Your task to perform on an android device: Check the news Image 0: 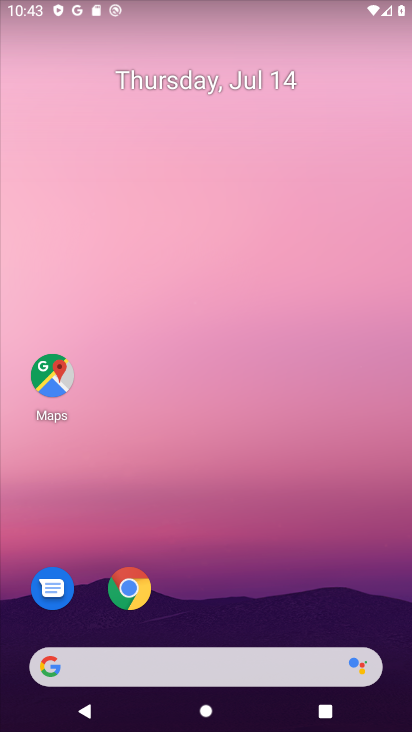
Step 0: press home button
Your task to perform on an android device: Check the news Image 1: 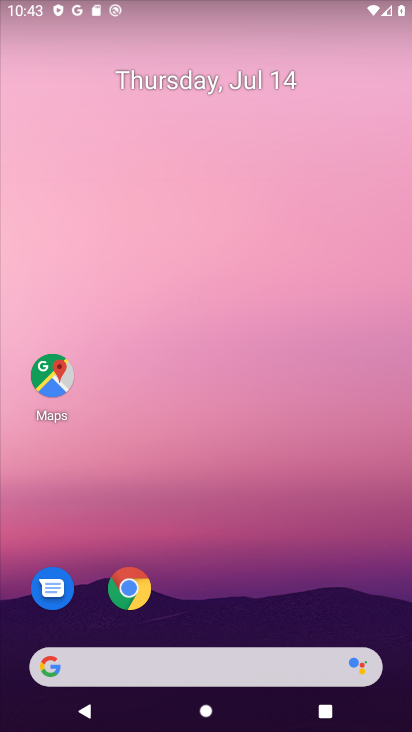
Step 1: click (136, 578)
Your task to perform on an android device: Check the news Image 2: 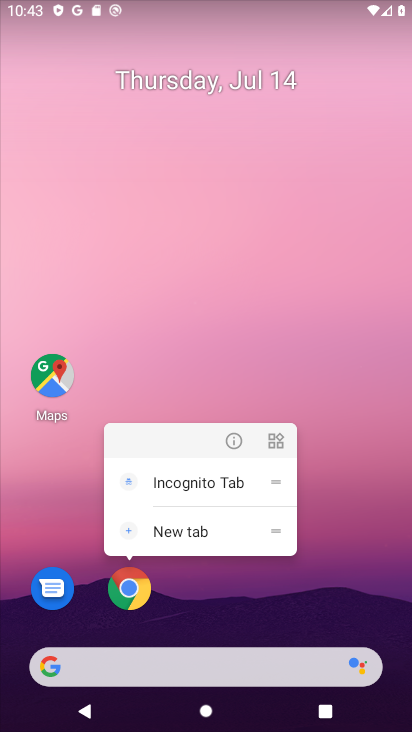
Step 2: click (136, 578)
Your task to perform on an android device: Check the news Image 3: 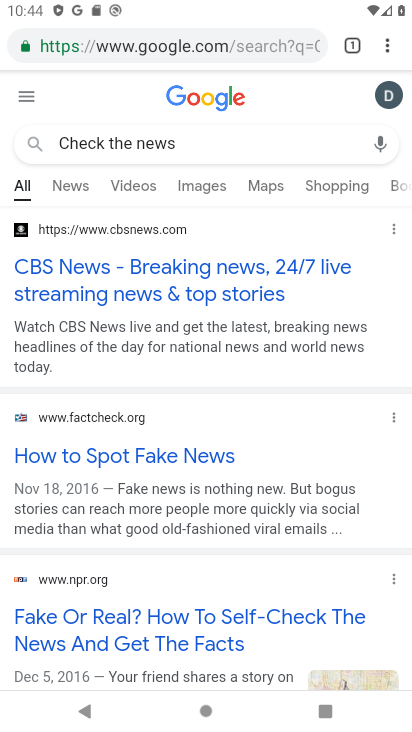
Step 3: click (202, 50)
Your task to perform on an android device: Check the news Image 4: 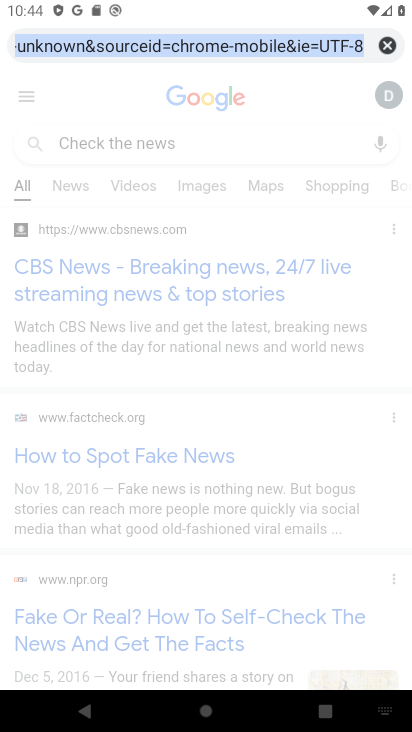
Step 4: type "news"
Your task to perform on an android device: Check the news Image 5: 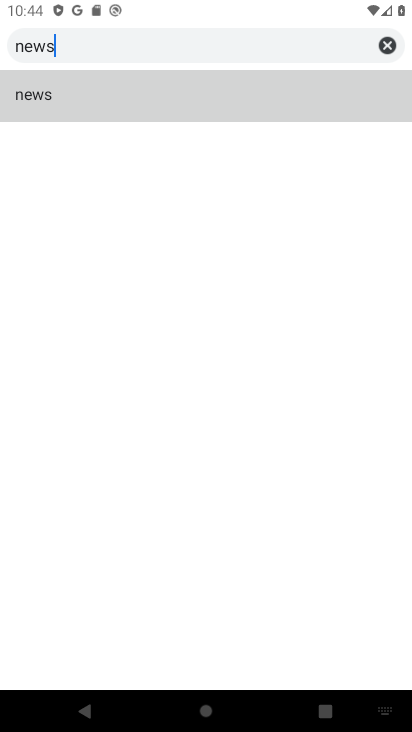
Step 5: type ""
Your task to perform on an android device: Check the news Image 6: 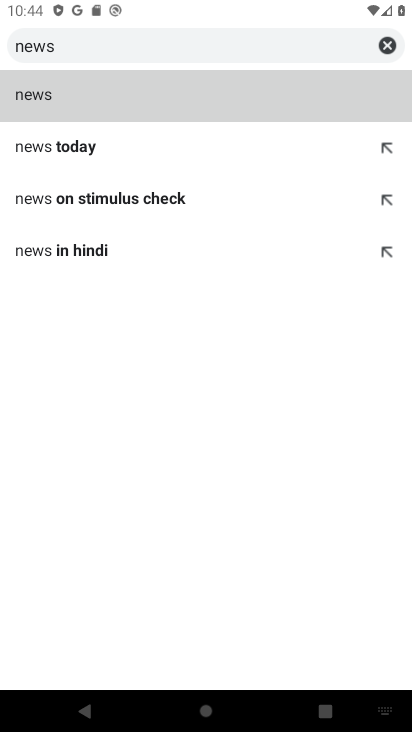
Step 6: task complete